Your task to perform on an android device: toggle location history Image 0: 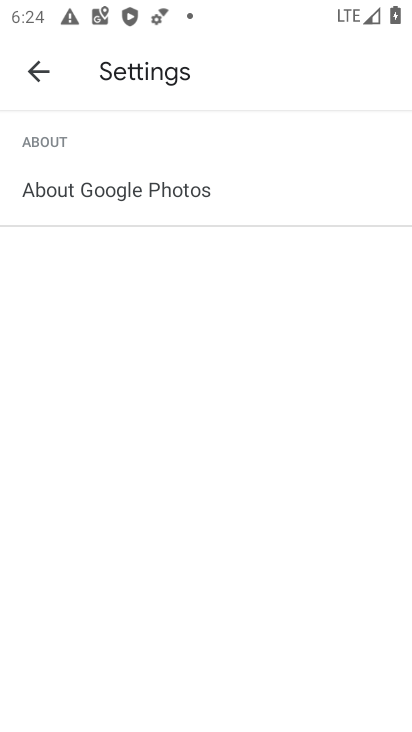
Step 0: press home button
Your task to perform on an android device: toggle location history Image 1: 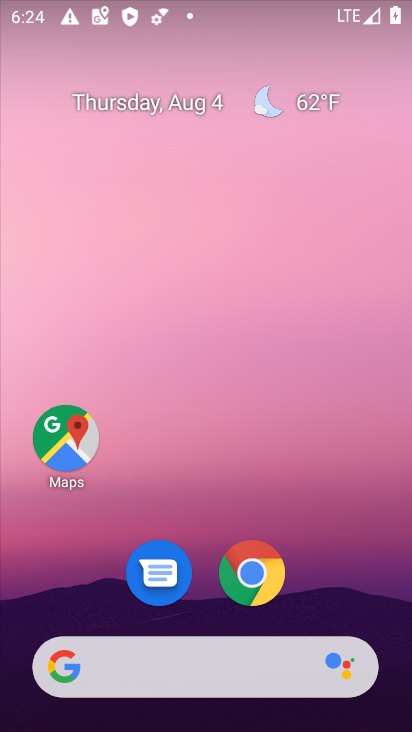
Step 1: drag from (235, 611) to (229, 133)
Your task to perform on an android device: toggle location history Image 2: 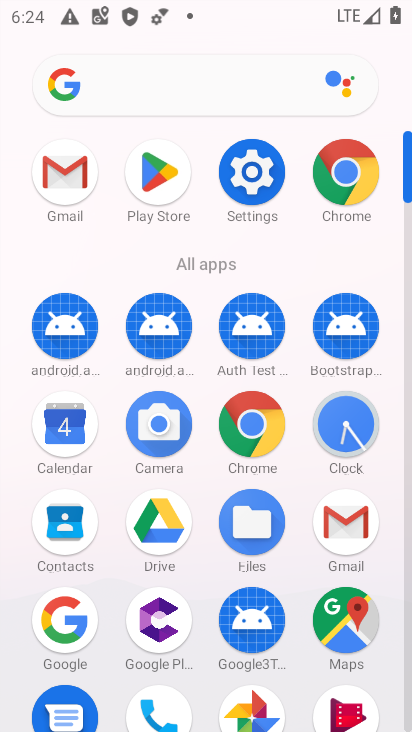
Step 2: click (259, 169)
Your task to perform on an android device: toggle location history Image 3: 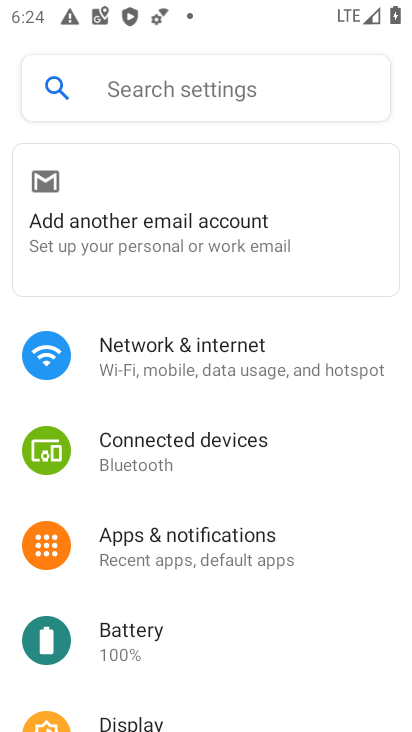
Step 3: drag from (256, 658) to (268, 217)
Your task to perform on an android device: toggle location history Image 4: 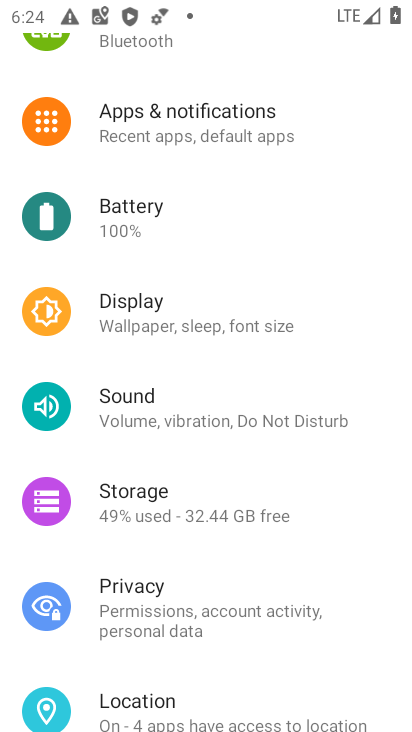
Step 4: click (143, 714)
Your task to perform on an android device: toggle location history Image 5: 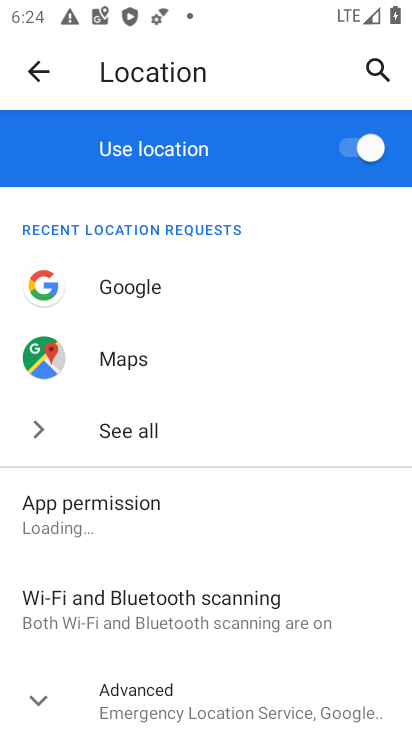
Step 5: drag from (288, 666) to (238, 276)
Your task to perform on an android device: toggle location history Image 6: 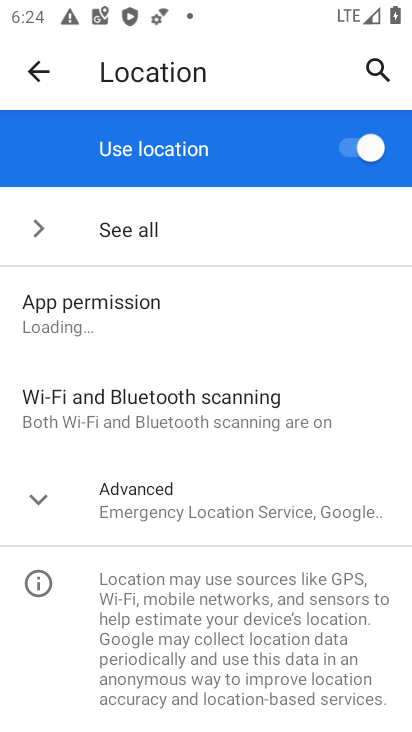
Step 6: click (121, 510)
Your task to perform on an android device: toggle location history Image 7: 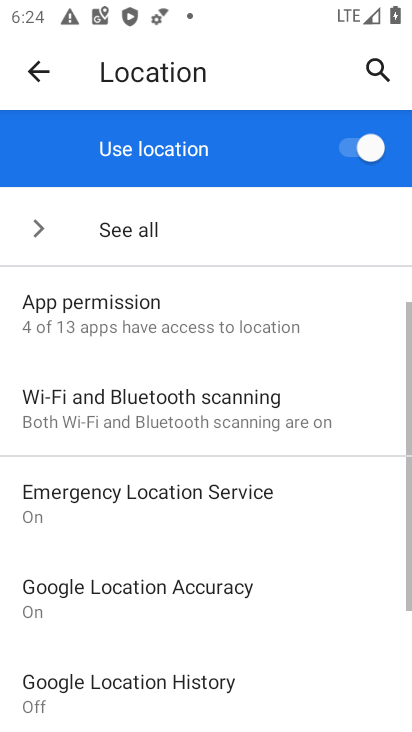
Step 7: drag from (317, 636) to (284, 367)
Your task to perform on an android device: toggle location history Image 8: 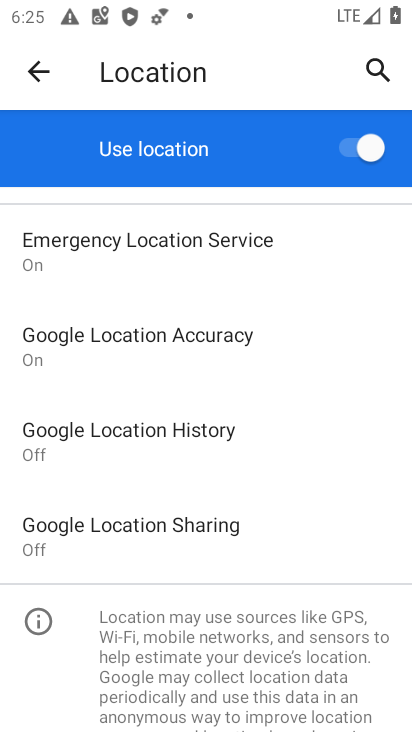
Step 8: click (191, 438)
Your task to perform on an android device: toggle location history Image 9: 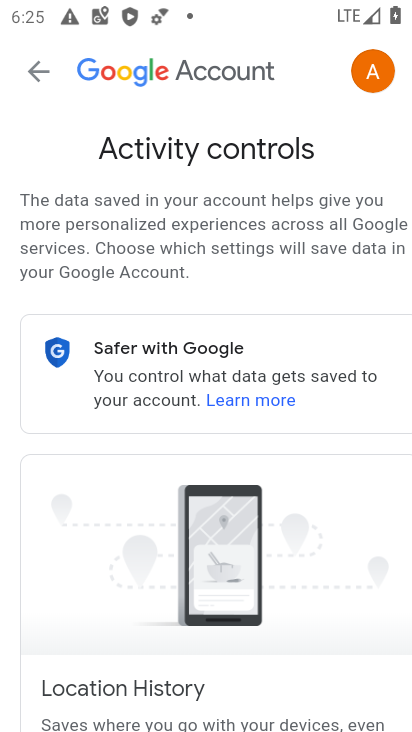
Step 9: drag from (305, 603) to (290, 204)
Your task to perform on an android device: toggle location history Image 10: 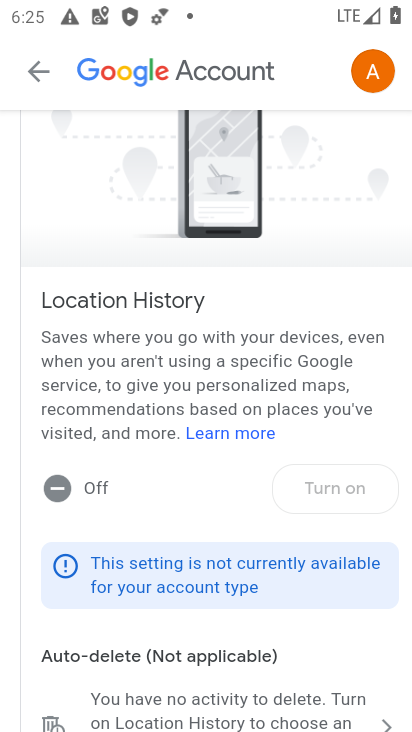
Step 10: click (322, 483)
Your task to perform on an android device: toggle location history Image 11: 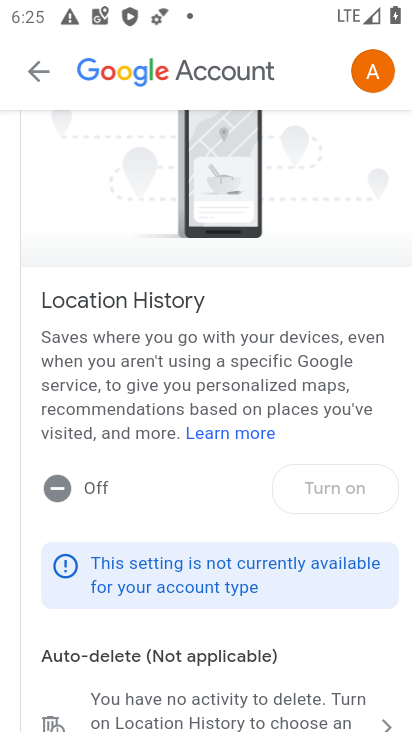
Step 11: task complete